Your task to perform on an android device: turn on priority inbox in the gmail app Image 0: 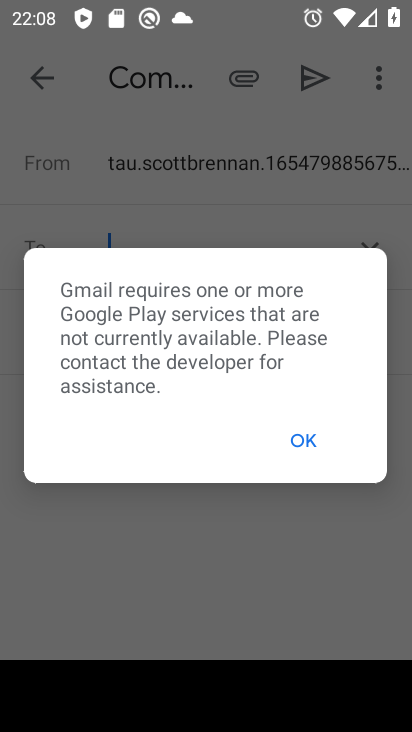
Step 0: press home button
Your task to perform on an android device: turn on priority inbox in the gmail app Image 1: 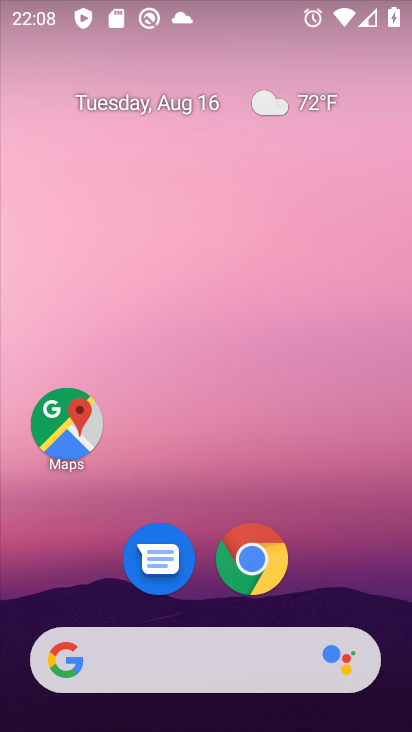
Step 1: drag from (194, 675) to (240, 164)
Your task to perform on an android device: turn on priority inbox in the gmail app Image 2: 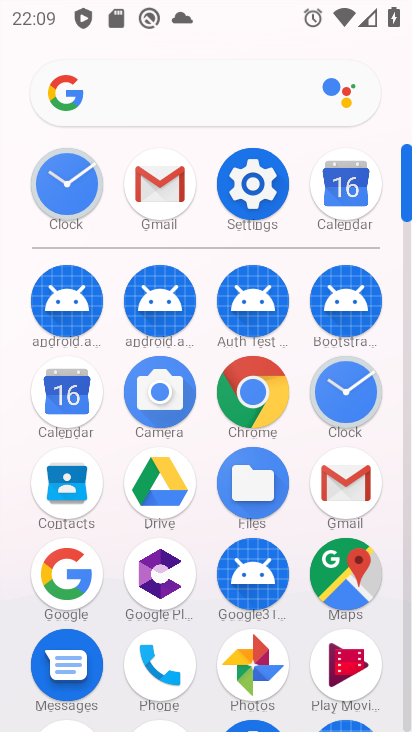
Step 2: click (344, 478)
Your task to perform on an android device: turn on priority inbox in the gmail app Image 3: 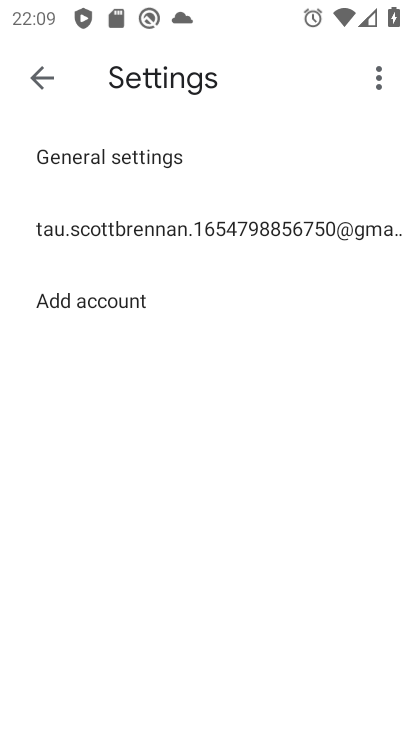
Step 3: click (295, 234)
Your task to perform on an android device: turn on priority inbox in the gmail app Image 4: 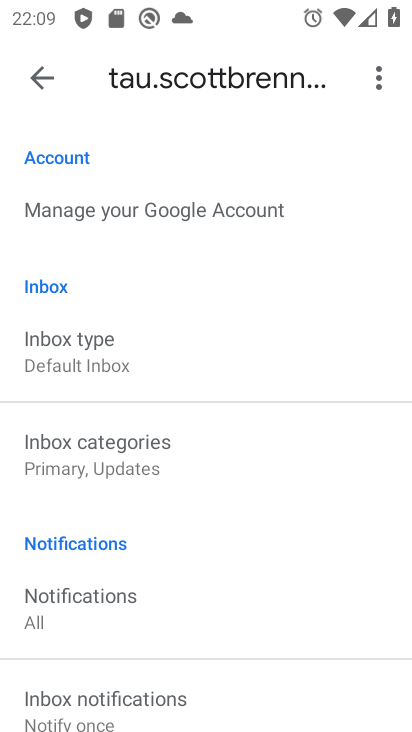
Step 4: drag from (119, 402) to (194, 297)
Your task to perform on an android device: turn on priority inbox in the gmail app Image 5: 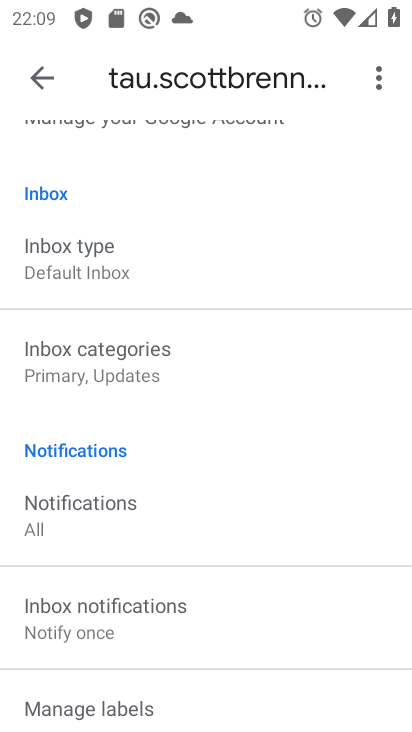
Step 5: click (100, 269)
Your task to perform on an android device: turn on priority inbox in the gmail app Image 6: 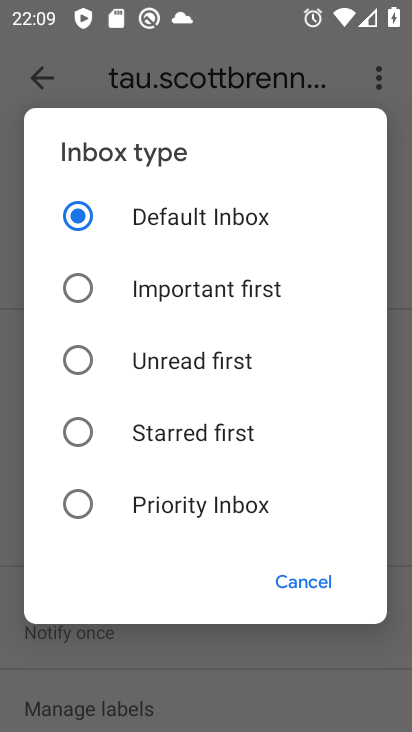
Step 6: click (74, 508)
Your task to perform on an android device: turn on priority inbox in the gmail app Image 7: 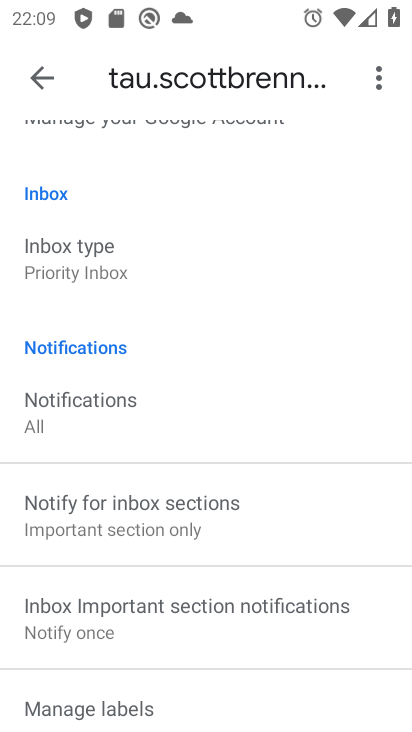
Step 7: task complete